Your task to perform on an android device: Open battery settings Image 0: 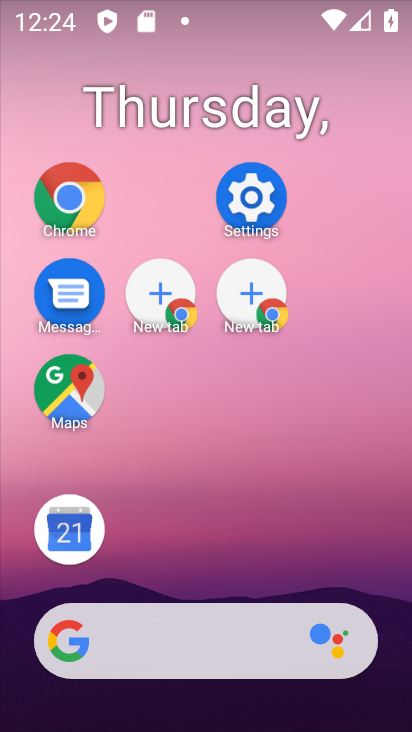
Step 0: drag from (237, 589) to (165, 109)
Your task to perform on an android device: Open battery settings Image 1: 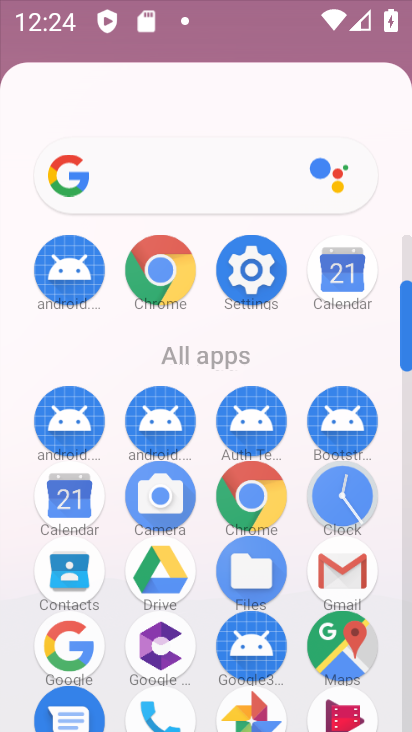
Step 1: drag from (323, 632) to (267, 180)
Your task to perform on an android device: Open battery settings Image 2: 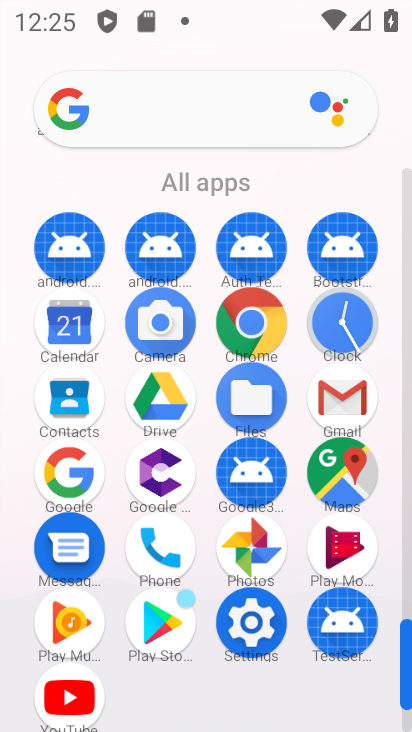
Step 2: click (255, 628)
Your task to perform on an android device: Open battery settings Image 3: 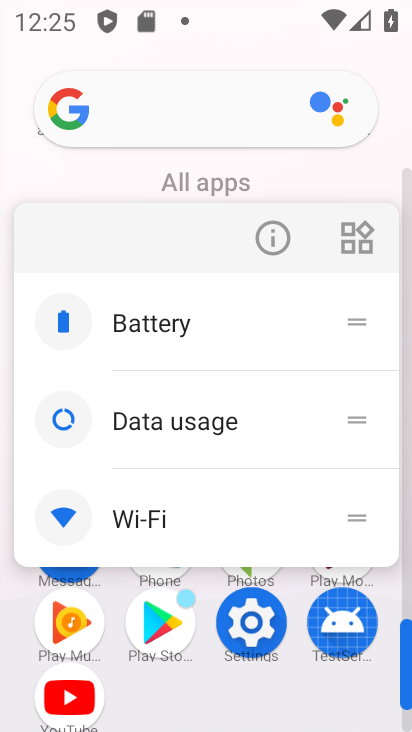
Step 3: click (255, 628)
Your task to perform on an android device: Open battery settings Image 4: 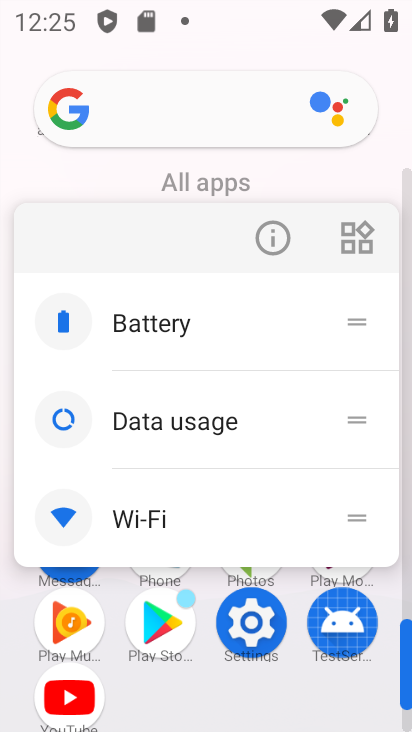
Step 4: click (255, 628)
Your task to perform on an android device: Open battery settings Image 5: 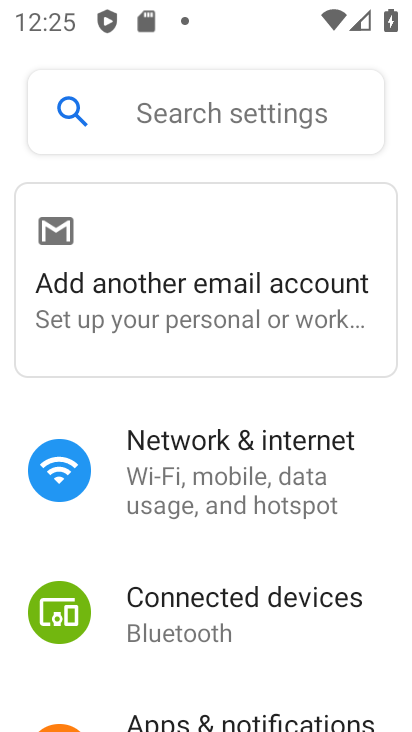
Step 5: drag from (243, 606) to (235, 413)
Your task to perform on an android device: Open battery settings Image 6: 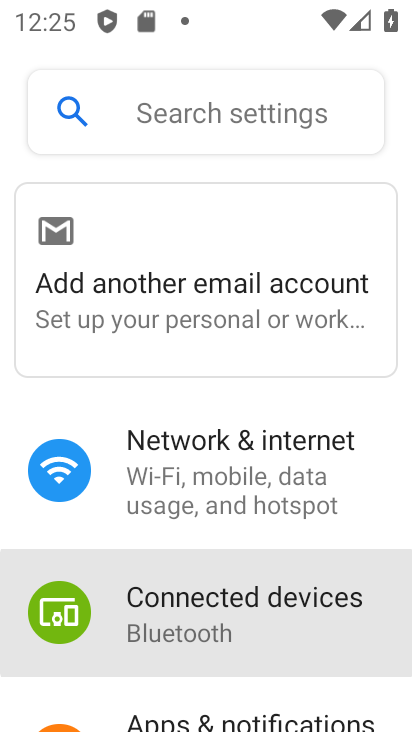
Step 6: drag from (257, 609) to (267, 405)
Your task to perform on an android device: Open battery settings Image 7: 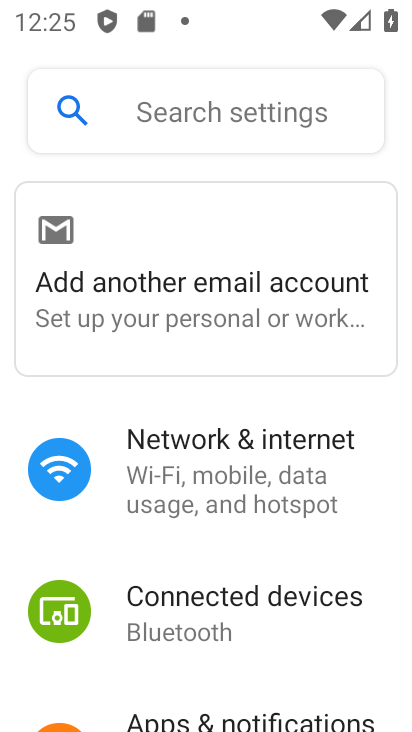
Step 7: drag from (203, 572) to (243, 370)
Your task to perform on an android device: Open battery settings Image 8: 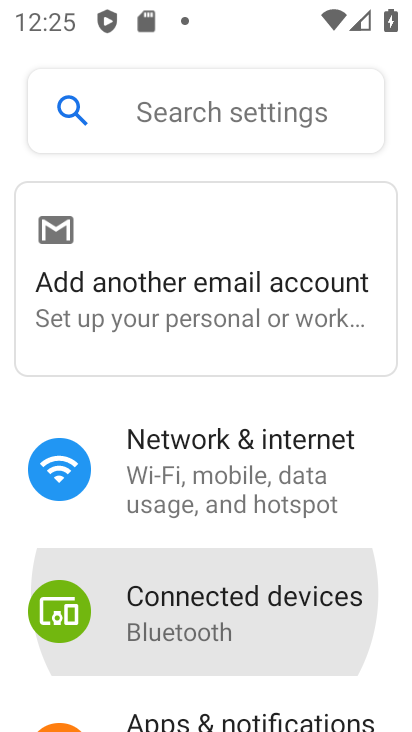
Step 8: drag from (231, 565) to (252, 374)
Your task to perform on an android device: Open battery settings Image 9: 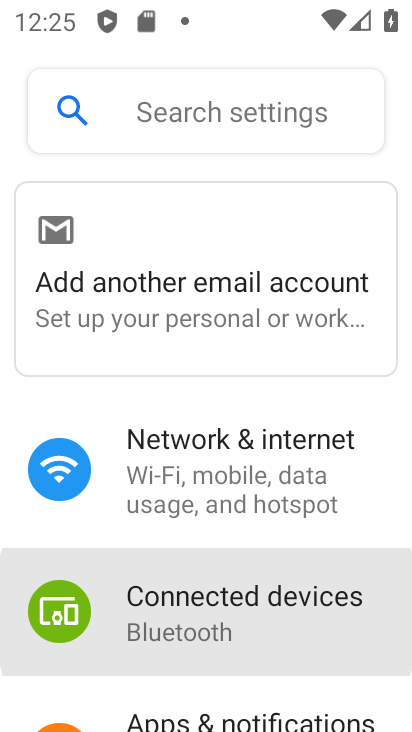
Step 9: drag from (230, 602) to (240, 397)
Your task to perform on an android device: Open battery settings Image 10: 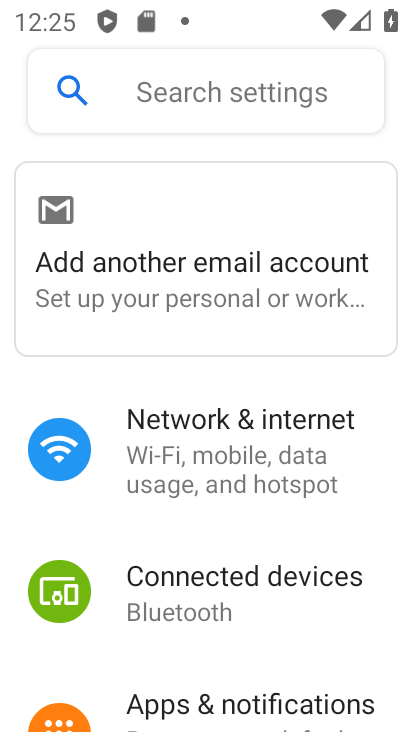
Step 10: drag from (211, 523) to (221, 309)
Your task to perform on an android device: Open battery settings Image 11: 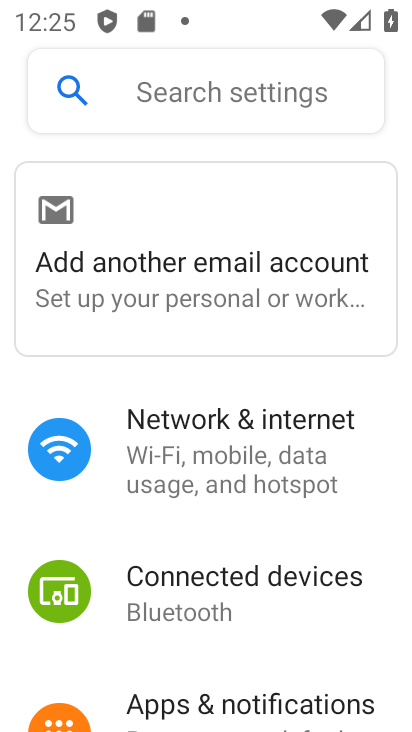
Step 11: drag from (260, 588) to (226, 452)
Your task to perform on an android device: Open battery settings Image 12: 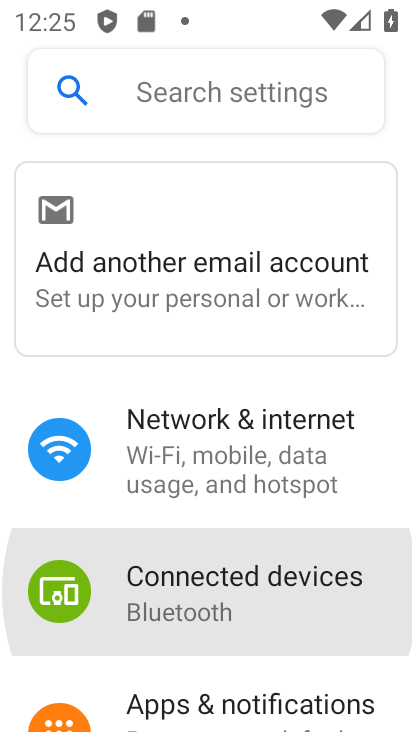
Step 12: click (204, 385)
Your task to perform on an android device: Open battery settings Image 13: 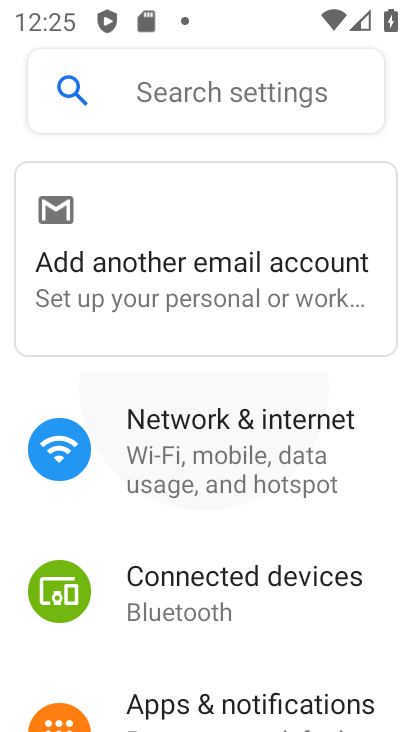
Step 13: drag from (204, 486) to (164, 346)
Your task to perform on an android device: Open battery settings Image 14: 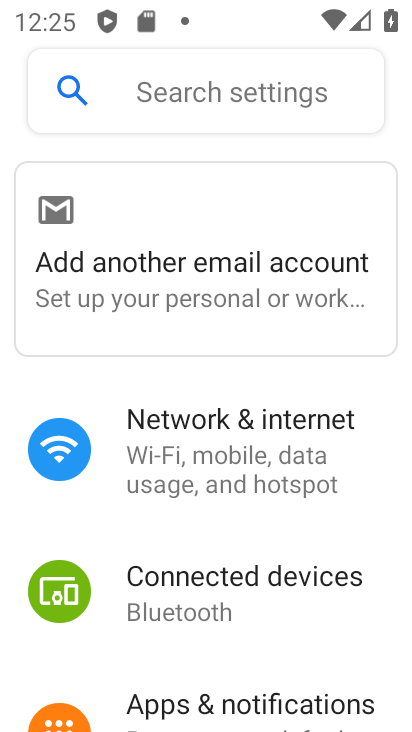
Step 14: drag from (230, 621) to (136, 276)
Your task to perform on an android device: Open battery settings Image 15: 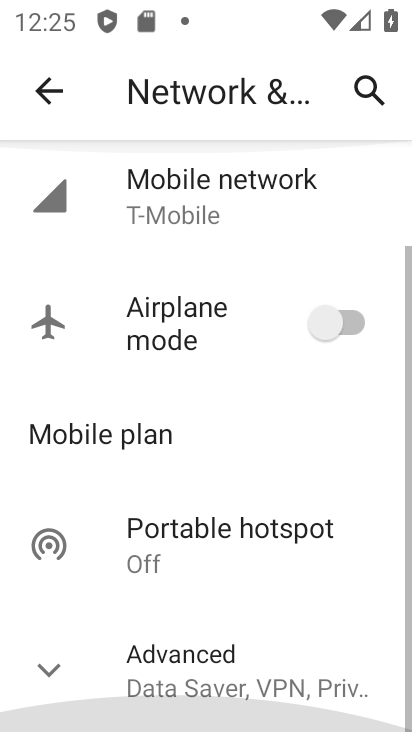
Step 15: click (127, 321)
Your task to perform on an android device: Open battery settings Image 16: 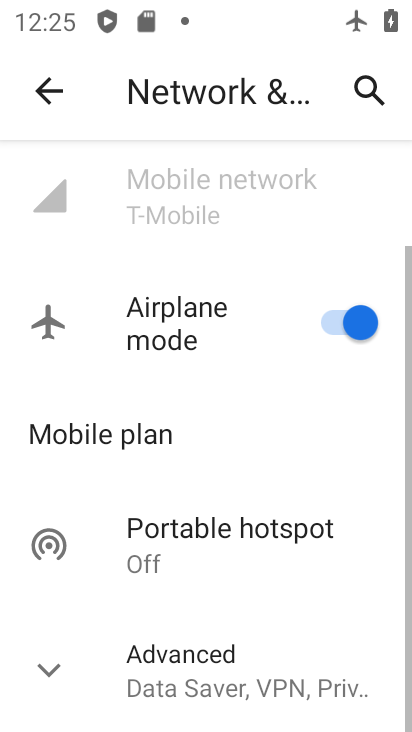
Step 16: click (32, 91)
Your task to perform on an android device: Open battery settings Image 17: 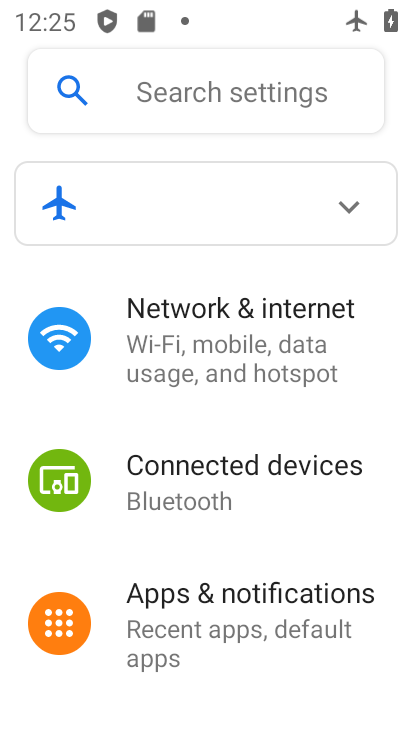
Step 17: drag from (251, 495) to (225, 272)
Your task to perform on an android device: Open battery settings Image 18: 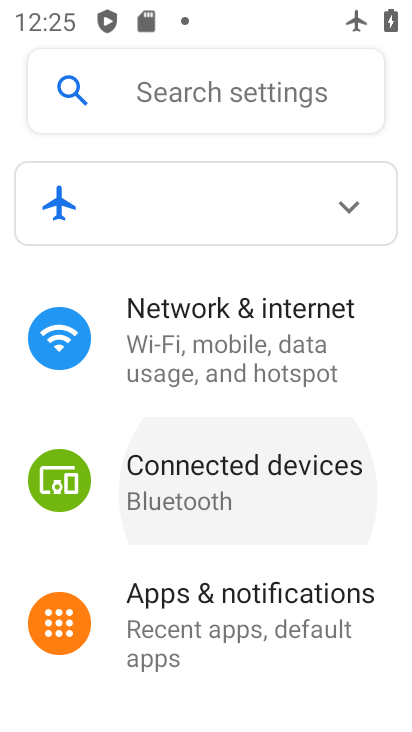
Step 18: drag from (283, 486) to (257, 276)
Your task to perform on an android device: Open battery settings Image 19: 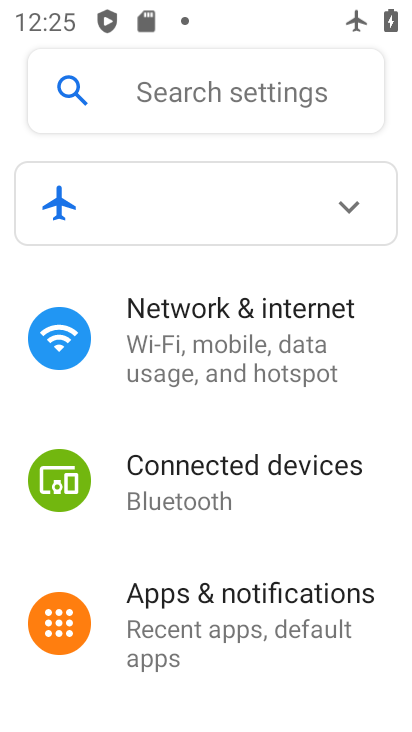
Step 19: drag from (247, 531) to (200, 405)
Your task to perform on an android device: Open battery settings Image 20: 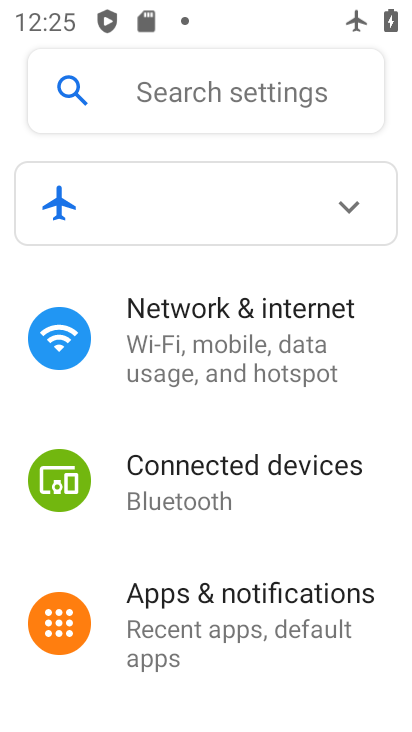
Step 20: drag from (242, 583) to (202, 345)
Your task to perform on an android device: Open battery settings Image 21: 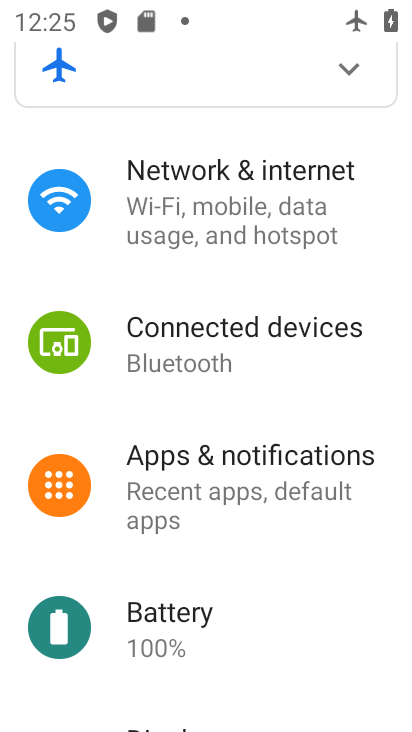
Step 21: click (166, 623)
Your task to perform on an android device: Open battery settings Image 22: 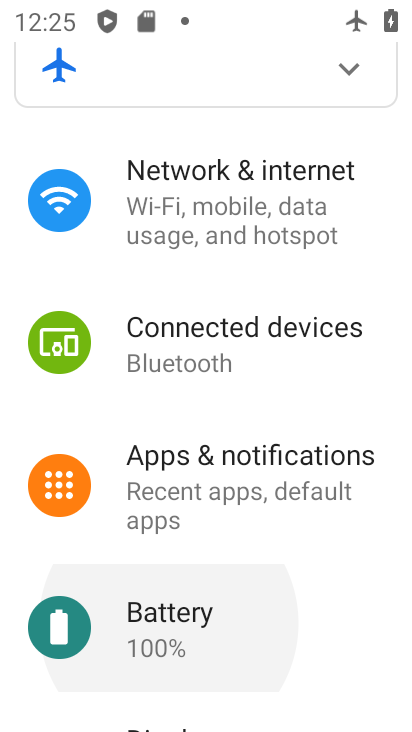
Step 22: click (166, 623)
Your task to perform on an android device: Open battery settings Image 23: 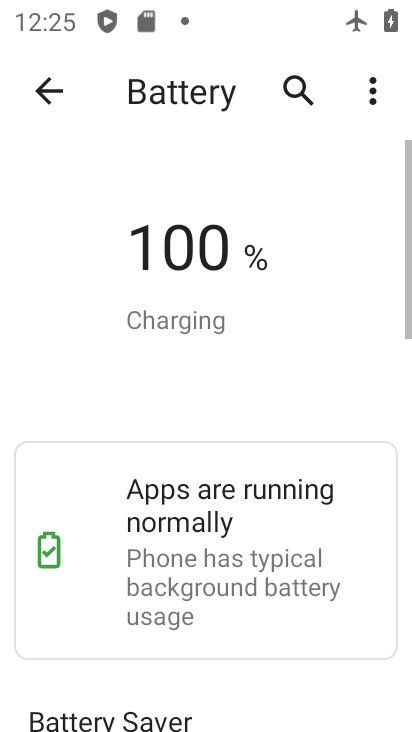
Step 23: click (163, 631)
Your task to perform on an android device: Open battery settings Image 24: 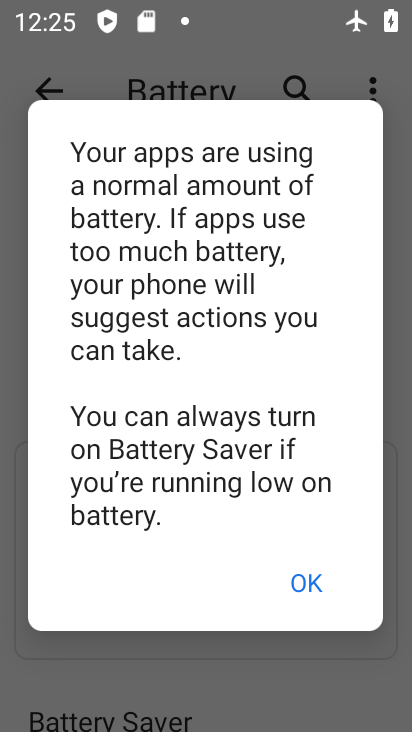
Step 24: task complete